Your task to perform on an android device: Open calendar and show me the third week of next month Image 0: 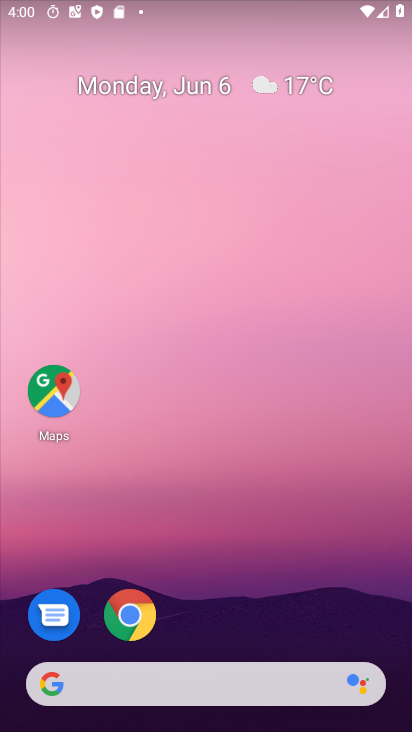
Step 0: drag from (346, 673) to (338, 8)
Your task to perform on an android device: Open calendar and show me the third week of next month Image 1: 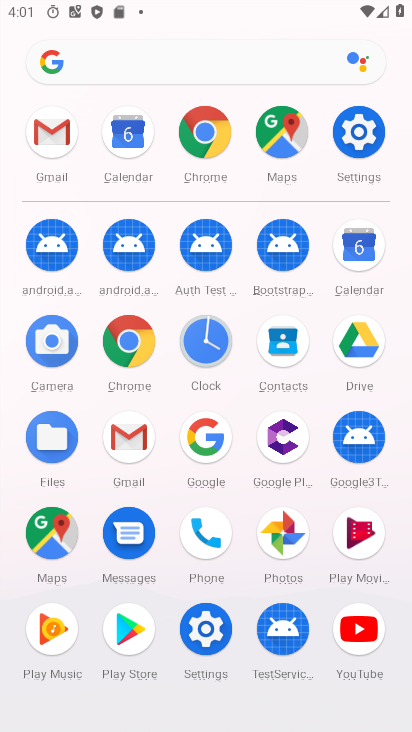
Step 1: click (370, 251)
Your task to perform on an android device: Open calendar and show me the third week of next month Image 2: 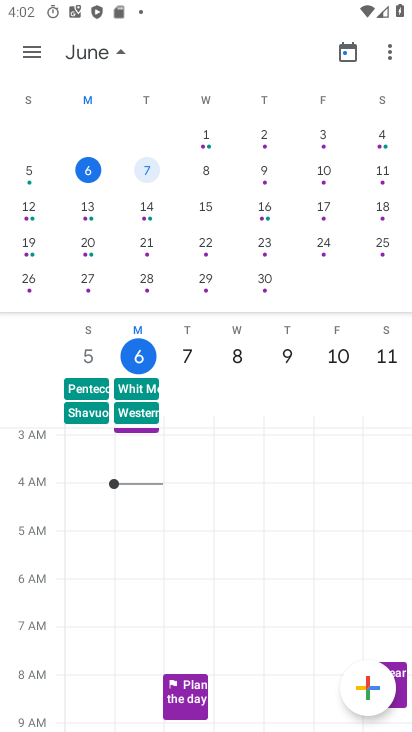
Step 2: drag from (333, 231) to (64, 219)
Your task to perform on an android device: Open calendar and show me the third week of next month Image 3: 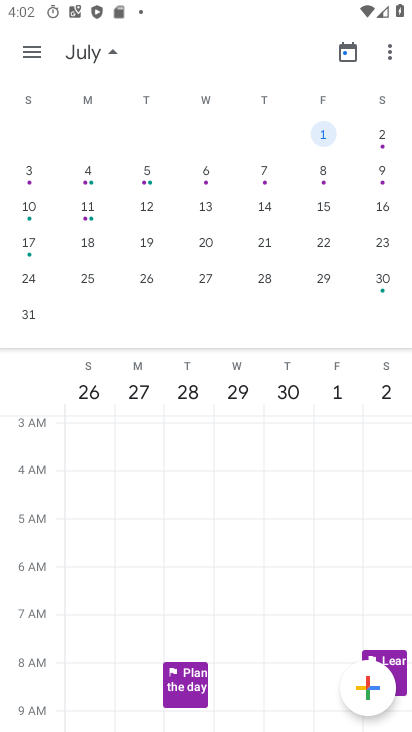
Step 3: click (210, 203)
Your task to perform on an android device: Open calendar and show me the third week of next month Image 4: 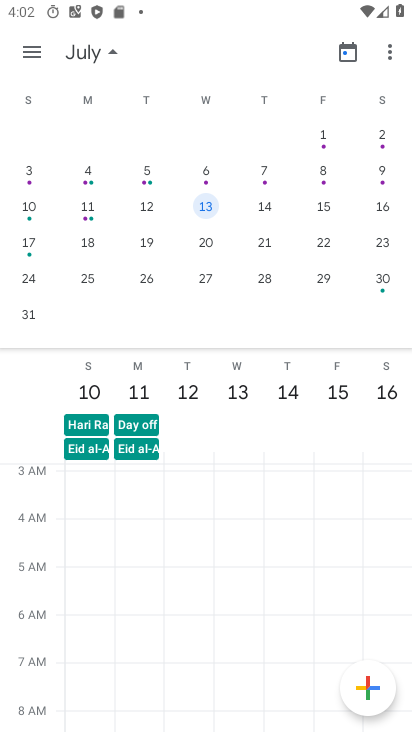
Step 4: task complete